Your task to perform on an android device: Open ESPN.com Image 0: 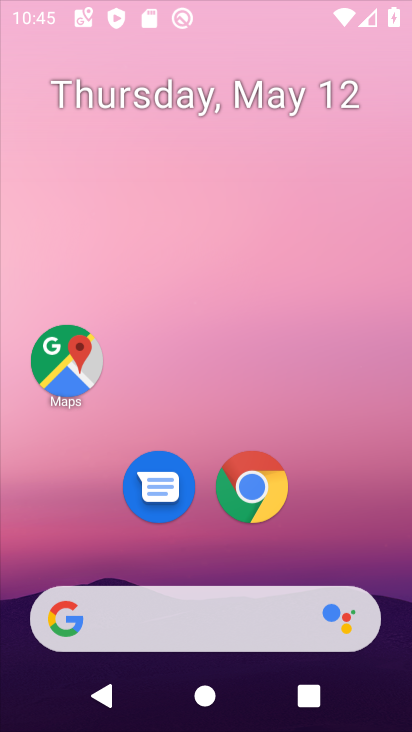
Step 0: press back button
Your task to perform on an android device: Open ESPN.com Image 1: 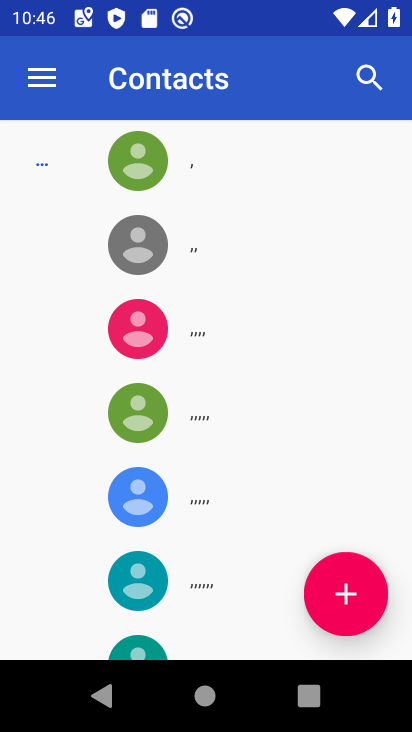
Step 1: press home button
Your task to perform on an android device: Open ESPN.com Image 2: 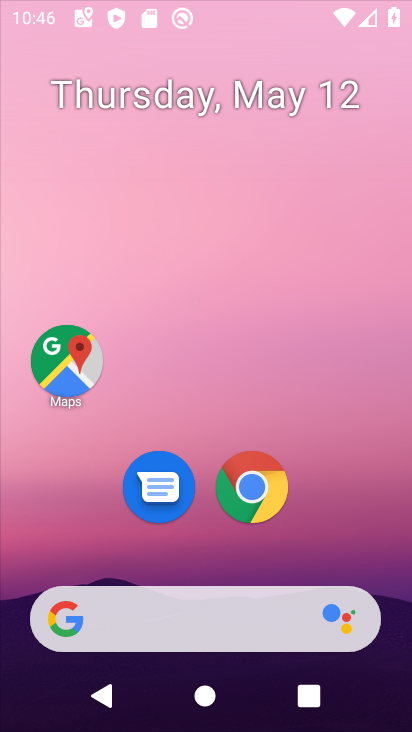
Step 2: drag from (7, 593) to (213, 259)
Your task to perform on an android device: Open ESPN.com Image 3: 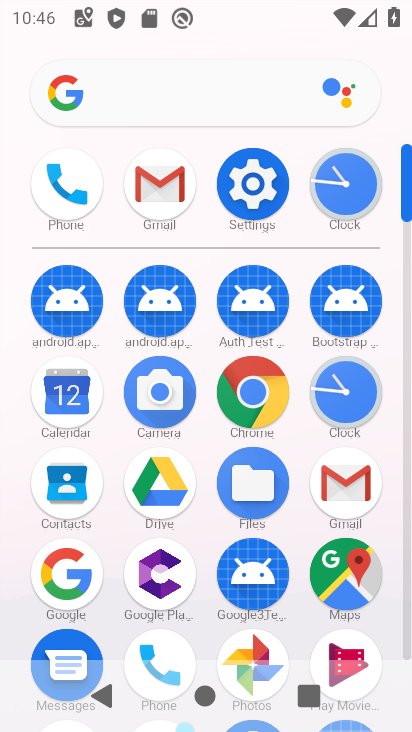
Step 3: press back button
Your task to perform on an android device: Open ESPN.com Image 4: 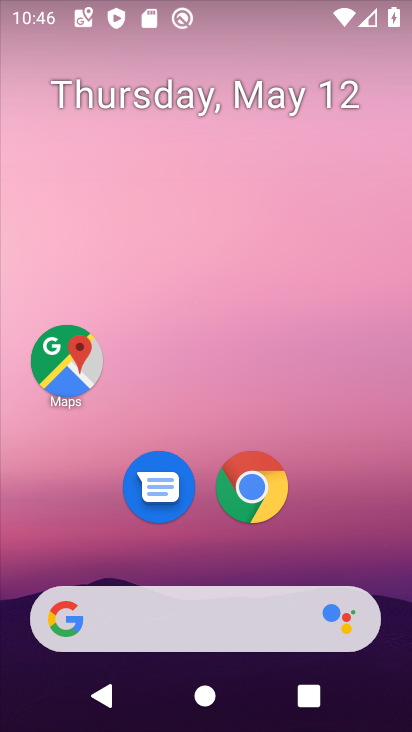
Step 4: click (258, 483)
Your task to perform on an android device: Open ESPN.com Image 5: 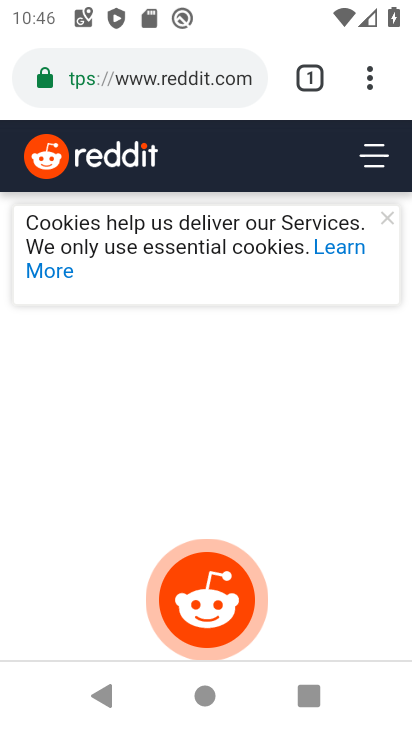
Step 5: click (313, 90)
Your task to perform on an android device: Open ESPN.com Image 6: 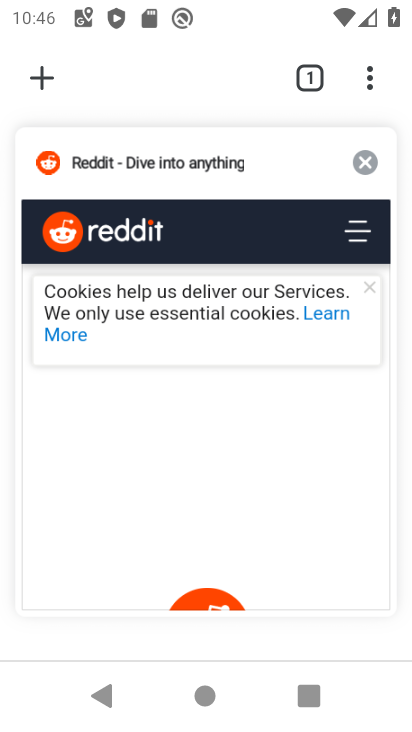
Step 6: click (369, 155)
Your task to perform on an android device: Open ESPN.com Image 7: 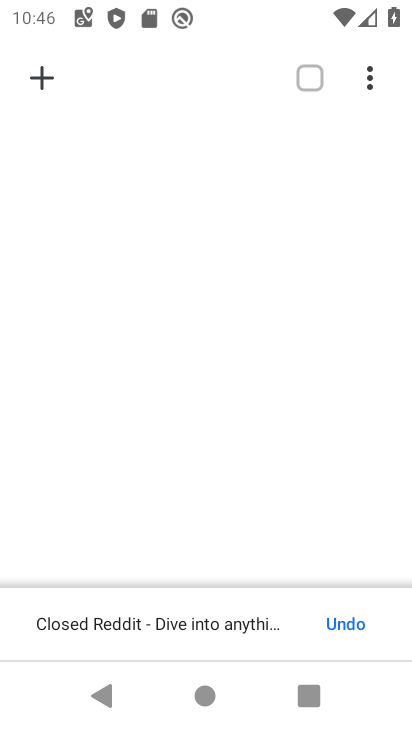
Step 7: click (50, 81)
Your task to perform on an android device: Open ESPN.com Image 8: 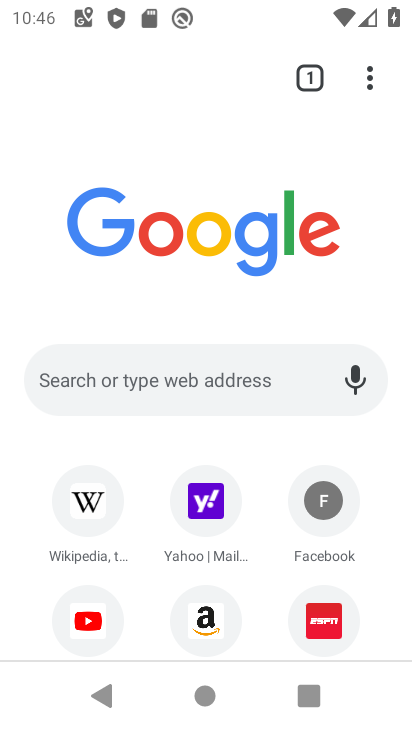
Step 8: drag from (13, 626) to (213, 173)
Your task to perform on an android device: Open ESPN.com Image 9: 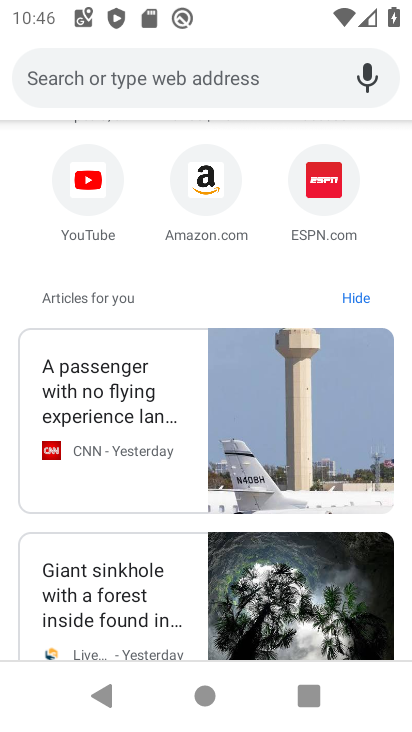
Step 9: click (305, 182)
Your task to perform on an android device: Open ESPN.com Image 10: 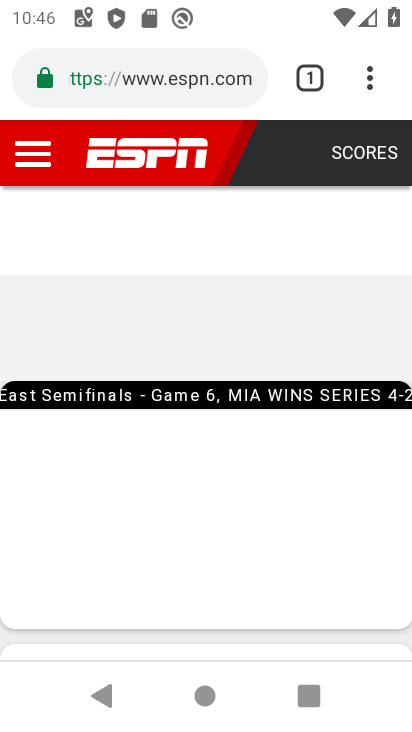
Step 10: task complete